Your task to perform on an android device: Open calendar and show me the first week of next month Image 0: 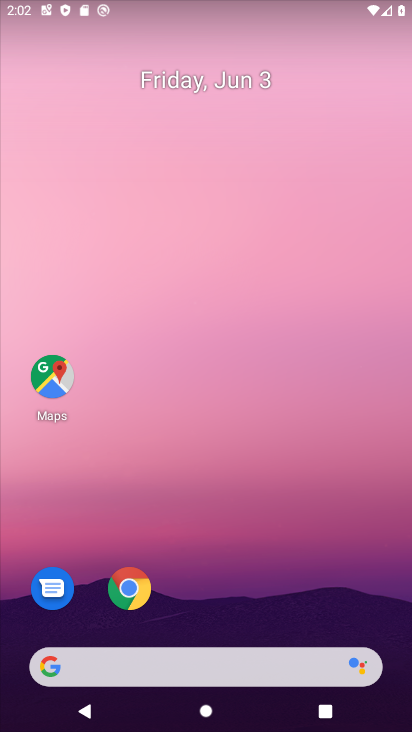
Step 0: drag from (248, 595) to (210, 214)
Your task to perform on an android device: Open calendar and show me the first week of next month Image 1: 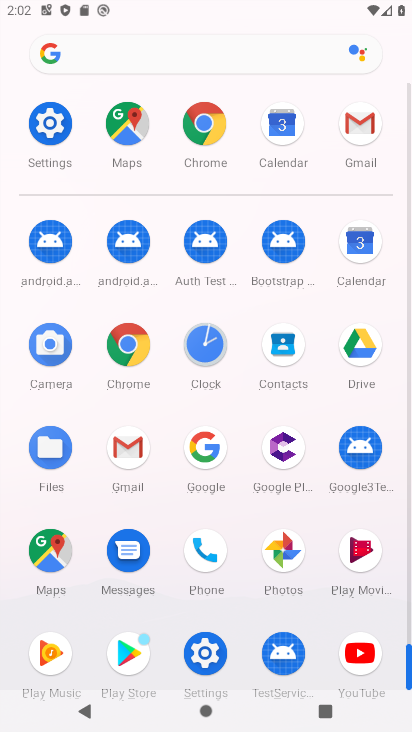
Step 1: click (365, 258)
Your task to perform on an android device: Open calendar and show me the first week of next month Image 2: 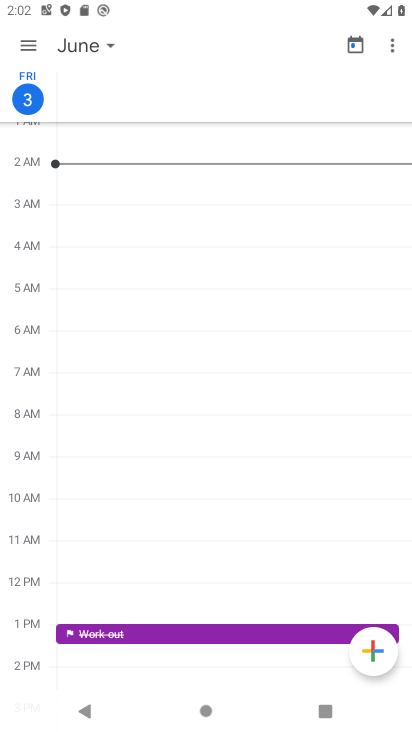
Step 2: click (101, 59)
Your task to perform on an android device: Open calendar and show me the first week of next month Image 3: 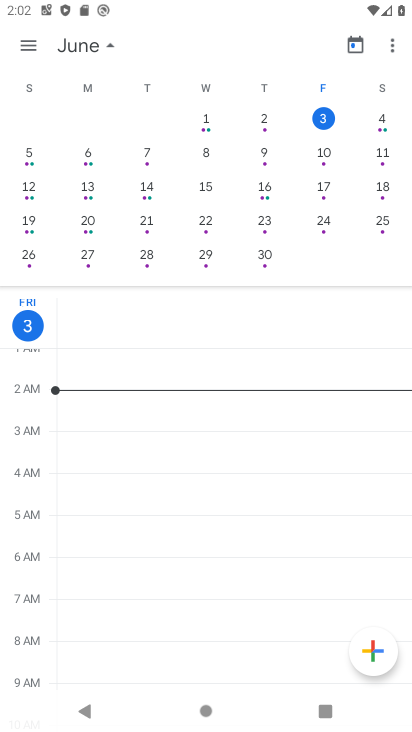
Step 3: drag from (343, 188) to (4, 238)
Your task to perform on an android device: Open calendar and show me the first week of next month Image 4: 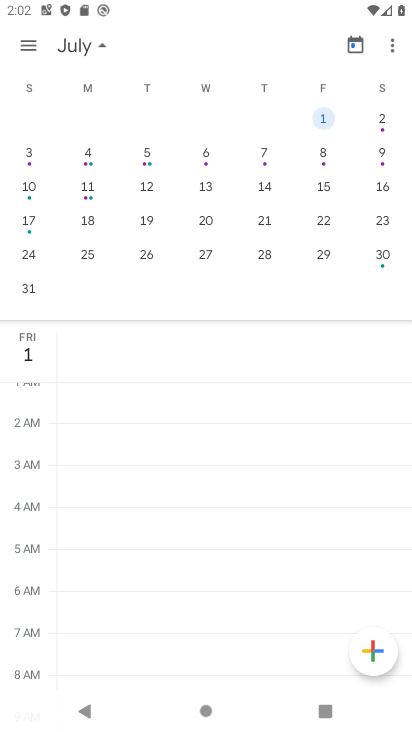
Step 4: click (101, 44)
Your task to perform on an android device: Open calendar and show me the first week of next month Image 5: 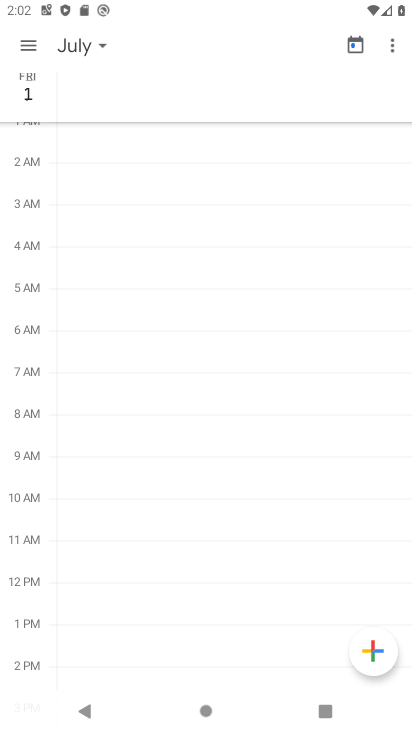
Step 5: click (16, 46)
Your task to perform on an android device: Open calendar and show me the first week of next month Image 6: 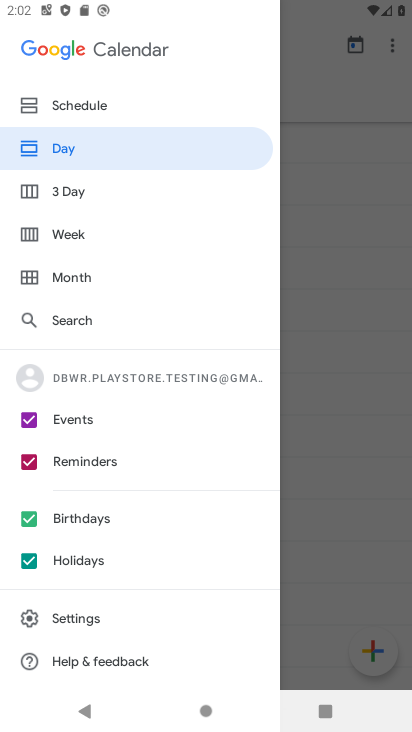
Step 6: click (85, 236)
Your task to perform on an android device: Open calendar and show me the first week of next month Image 7: 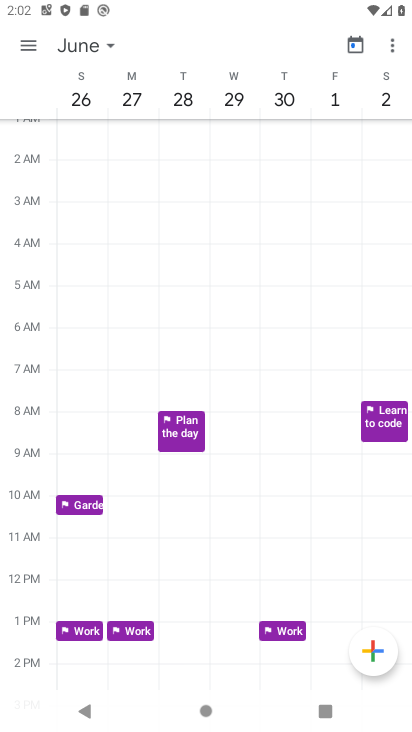
Step 7: task complete